Your task to perform on an android device: manage bookmarks in the chrome app Image 0: 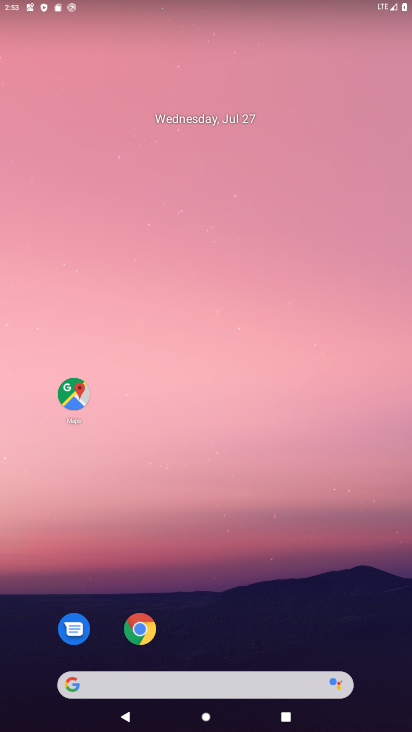
Step 0: click (126, 635)
Your task to perform on an android device: manage bookmarks in the chrome app Image 1: 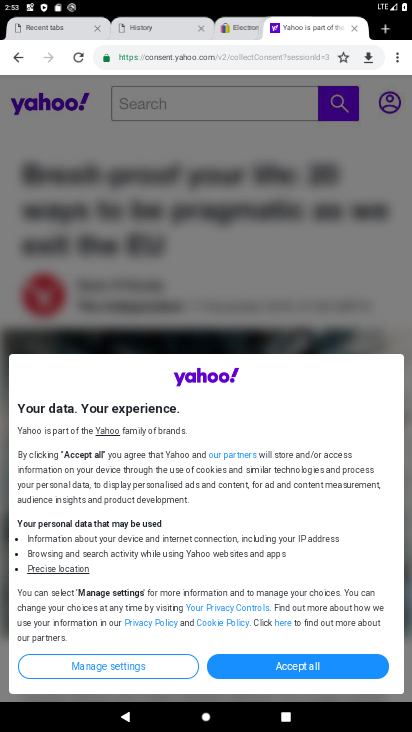
Step 1: click (404, 62)
Your task to perform on an android device: manage bookmarks in the chrome app Image 2: 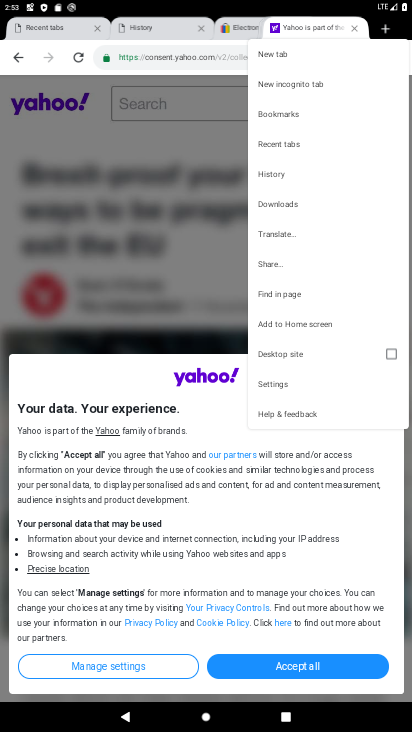
Step 2: click (310, 122)
Your task to perform on an android device: manage bookmarks in the chrome app Image 3: 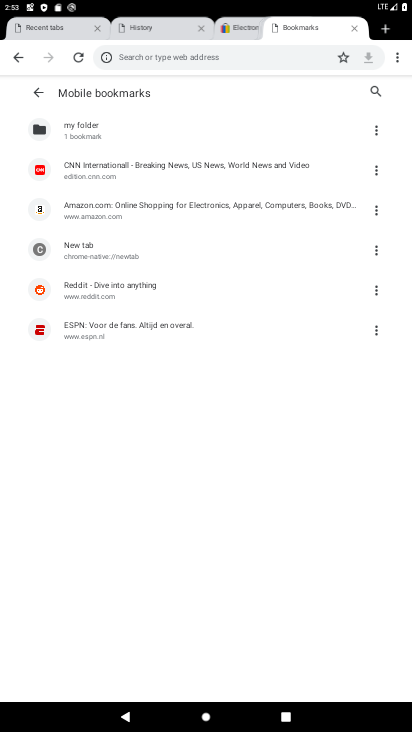
Step 3: click (388, 333)
Your task to perform on an android device: manage bookmarks in the chrome app Image 4: 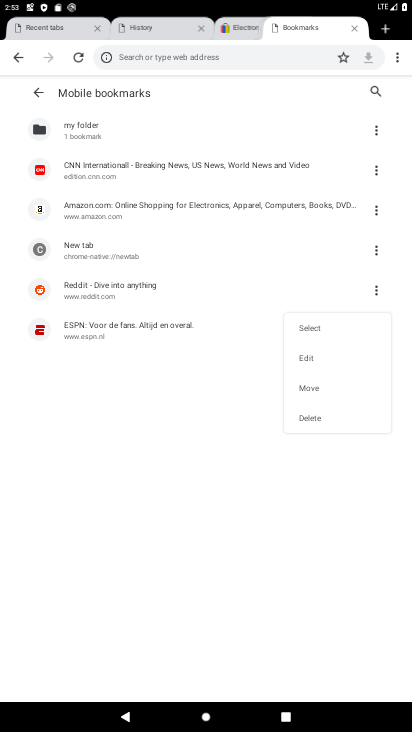
Step 4: click (328, 425)
Your task to perform on an android device: manage bookmarks in the chrome app Image 5: 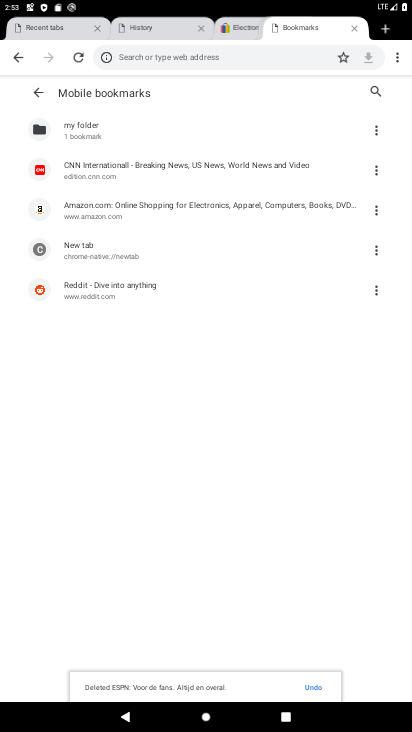
Step 5: task complete